Your task to perform on an android device: open app "Life360: Find Family & Friends" (install if not already installed), go to login, and select forgot password Image 0: 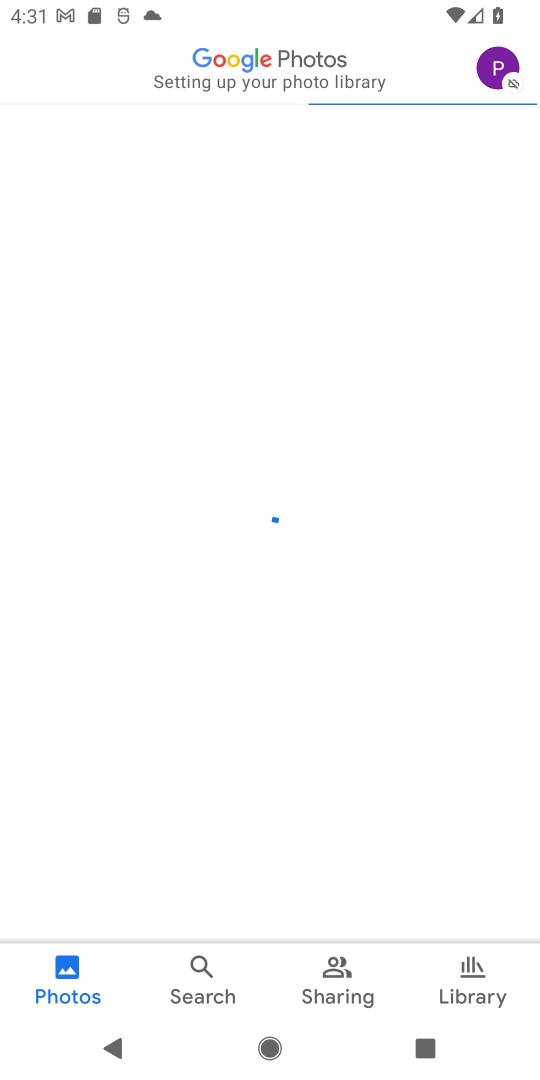
Step 0: press home button
Your task to perform on an android device: open app "Life360: Find Family & Friends" (install if not already installed), go to login, and select forgot password Image 1: 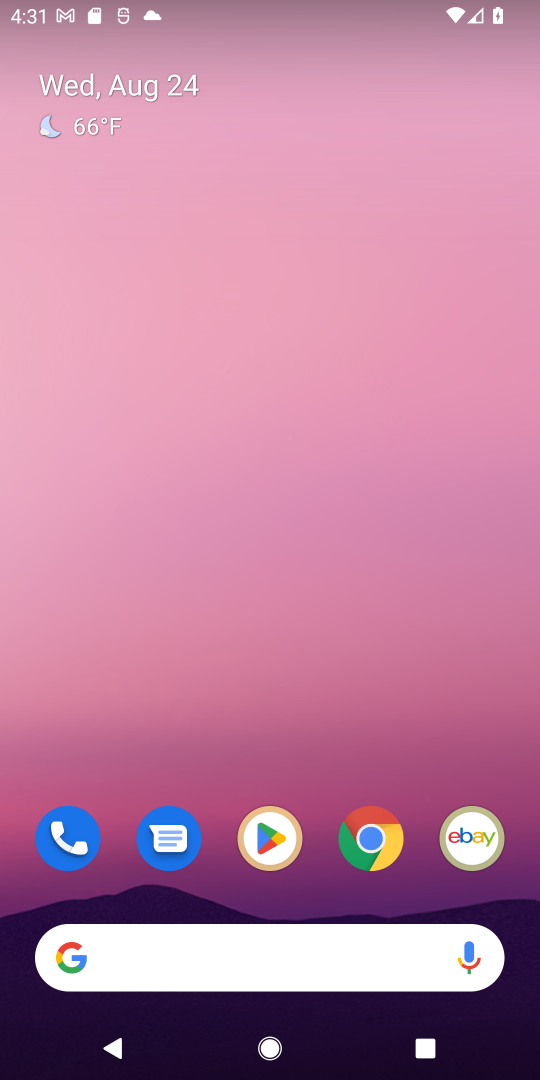
Step 1: click (264, 832)
Your task to perform on an android device: open app "Life360: Find Family & Friends" (install if not already installed), go to login, and select forgot password Image 2: 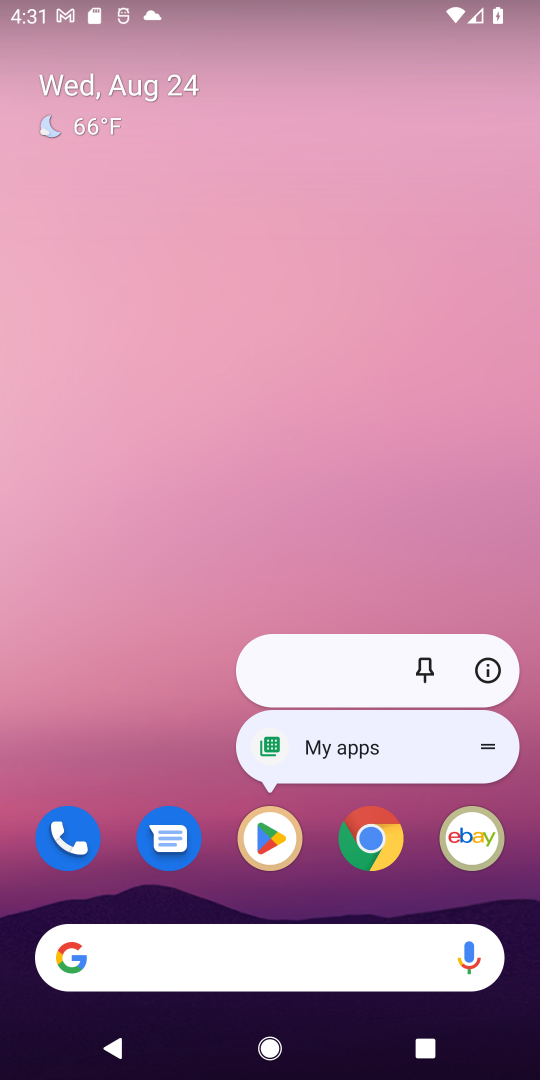
Step 2: click (264, 832)
Your task to perform on an android device: open app "Life360: Find Family & Friends" (install if not already installed), go to login, and select forgot password Image 3: 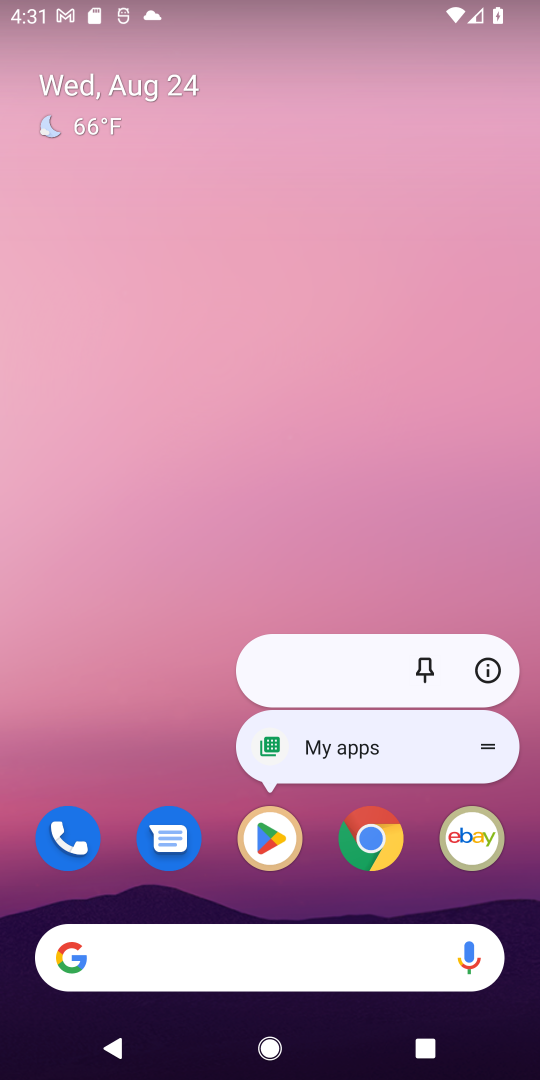
Step 3: click (264, 832)
Your task to perform on an android device: open app "Life360: Find Family & Friends" (install if not already installed), go to login, and select forgot password Image 4: 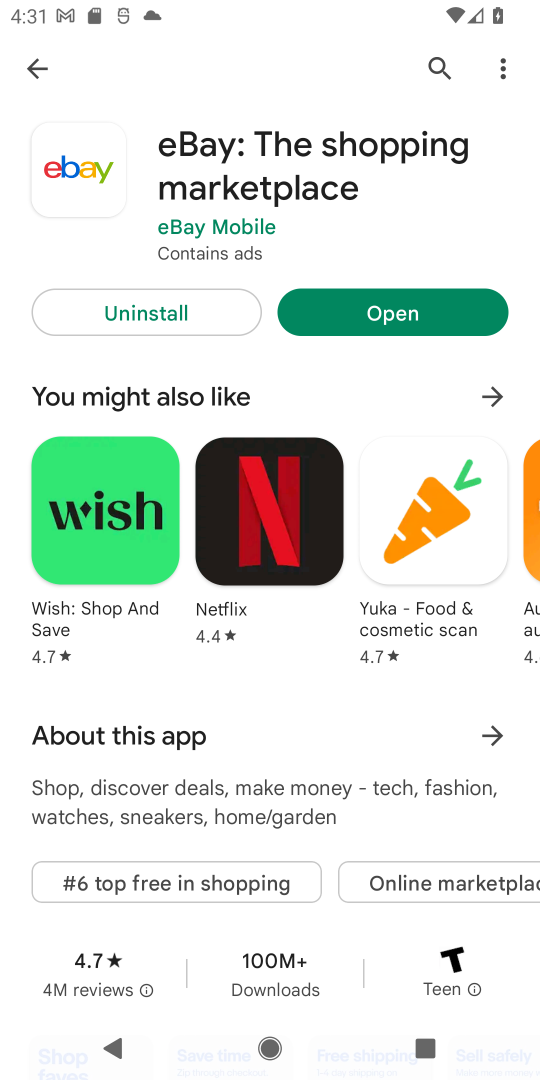
Step 4: click (41, 73)
Your task to perform on an android device: open app "Life360: Find Family & Friends" (install if not already installed), go to login, and select forgot password Image 5: 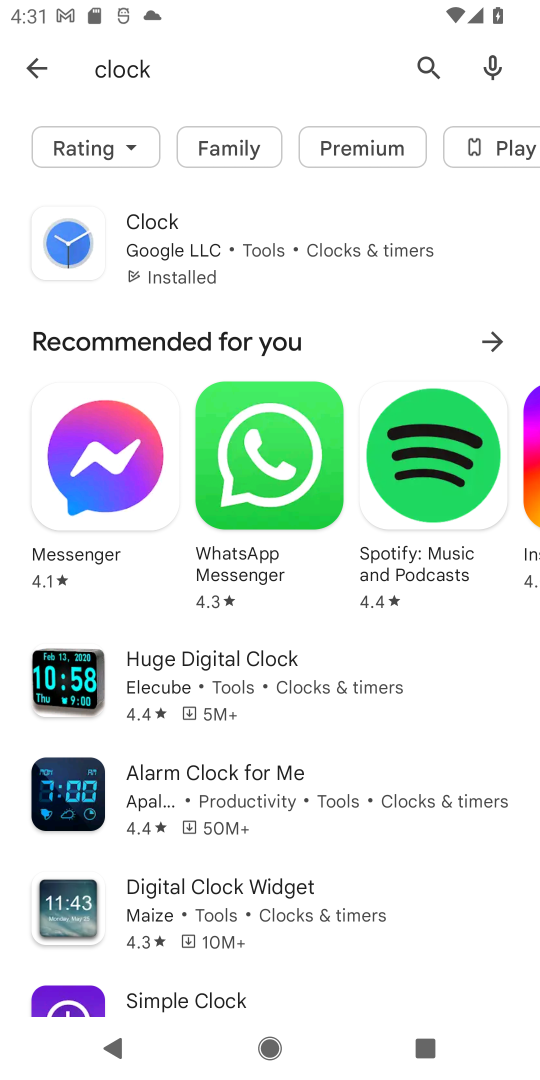
Step 5: click (425, 60)
Your task to perform on an android device: open app "Life360: Find Family & Friends" (install if not already installed), go to login, and select forgot password Image 6: 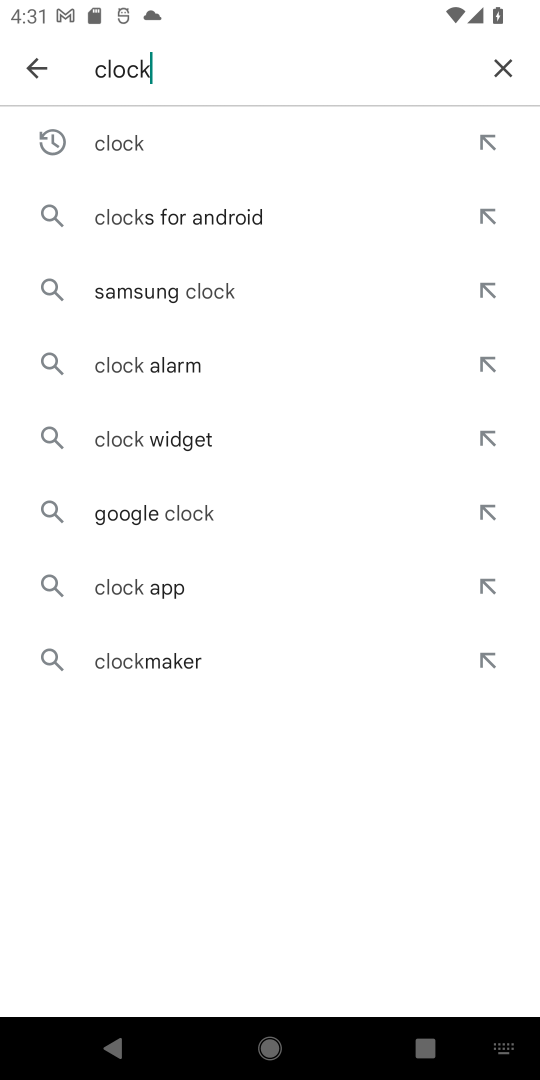
Step 6: click (503, 68)
Your task to perform on an android device: open app "Life360: Find Family & Friends" (install if not already installed), go to login, and select forgot password Image 7: 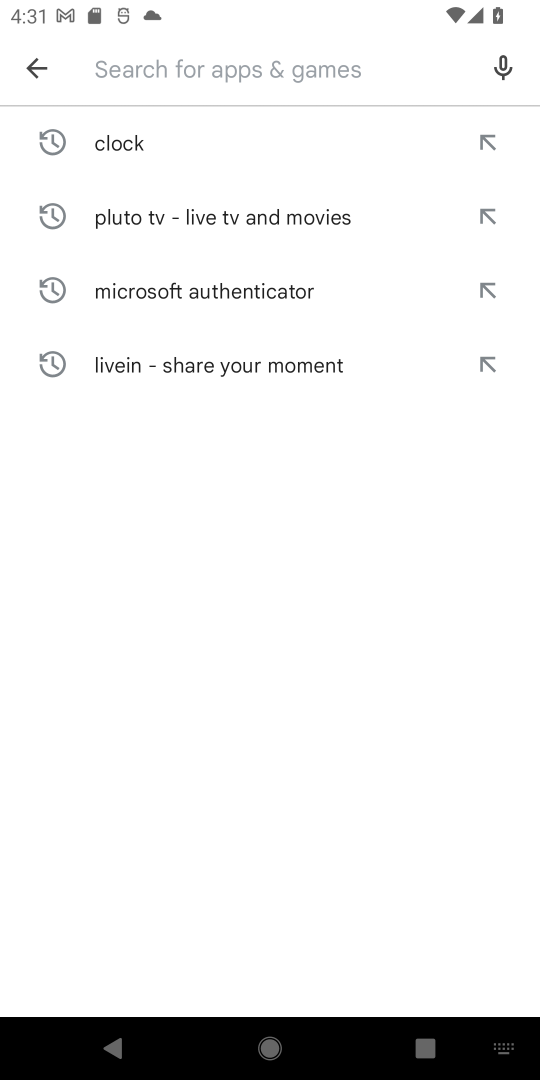
Step 7: type "Life360: Find Family & Friends"
Your task to perform on an android device: open app "Life360: Find Family & Friends" (install if not already installed), go to login, and select forgot password Image 8: 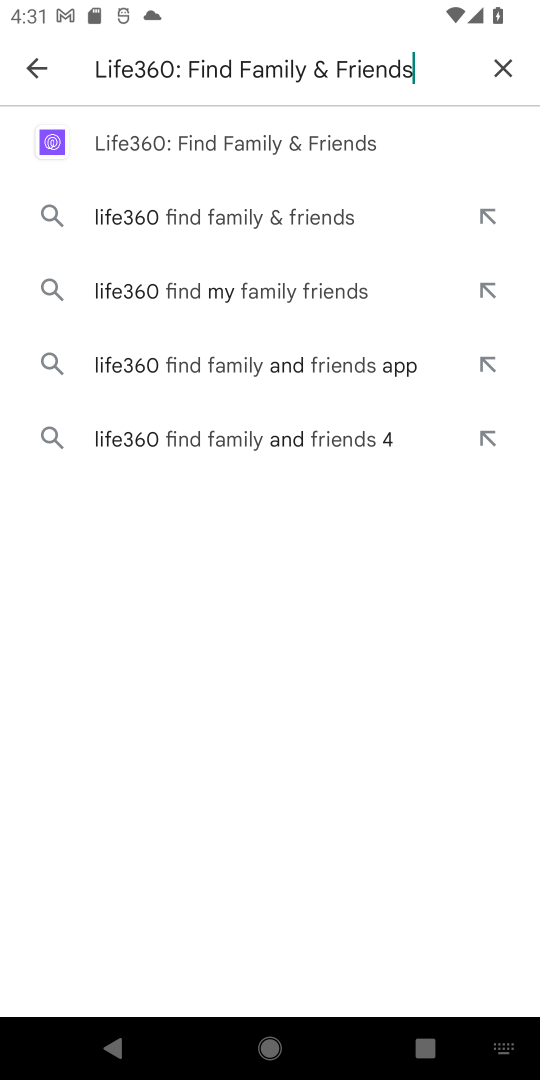
Step 8: click (154, 141)
Your task to perform on an android device: open app "Life360: Find Family & Friends" (install if not already installed), go to login, and select forgot password Image 9: 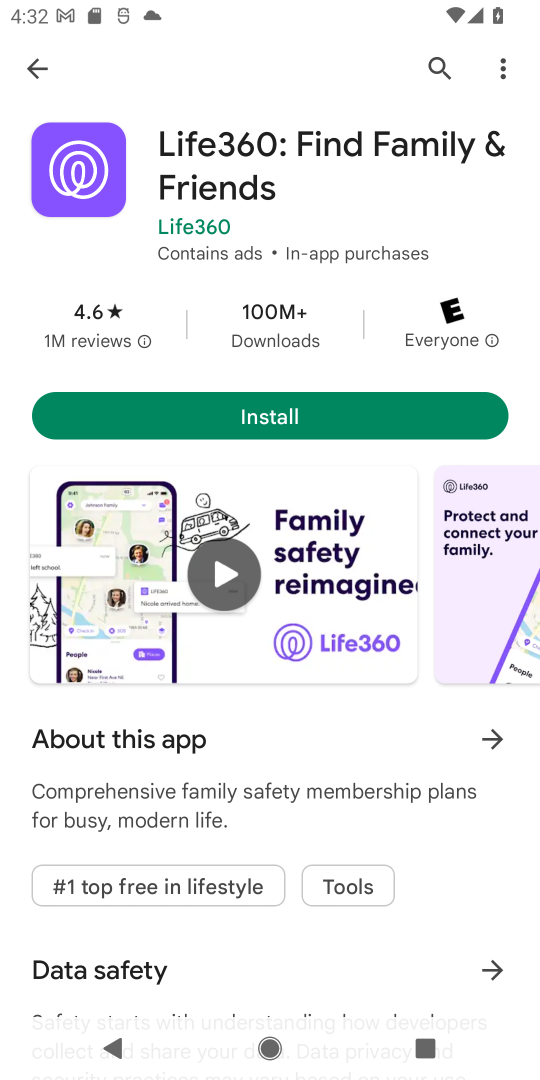
Step 9: click (274, 415)
Your task to perform on an android device: open app "Life360: Find Family & Friends" (install if not already installed), go to login, and select forgot password Image 10: 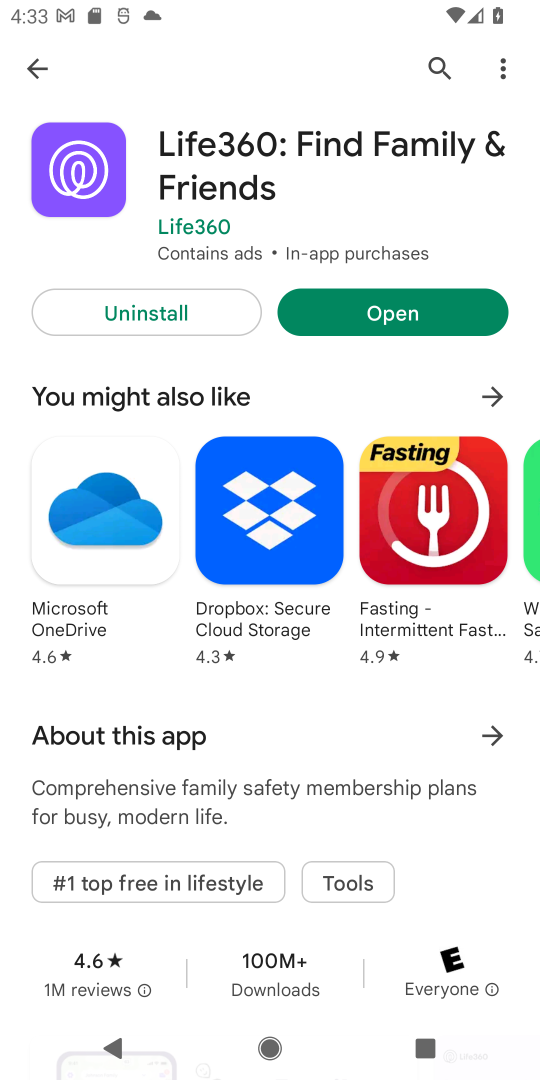
Step 10: click (394, 317)
Your task to perform on an android device: open app "Life360: Find Family & Friends" (install if not already installed), go to login, and select forgot password Image 11: 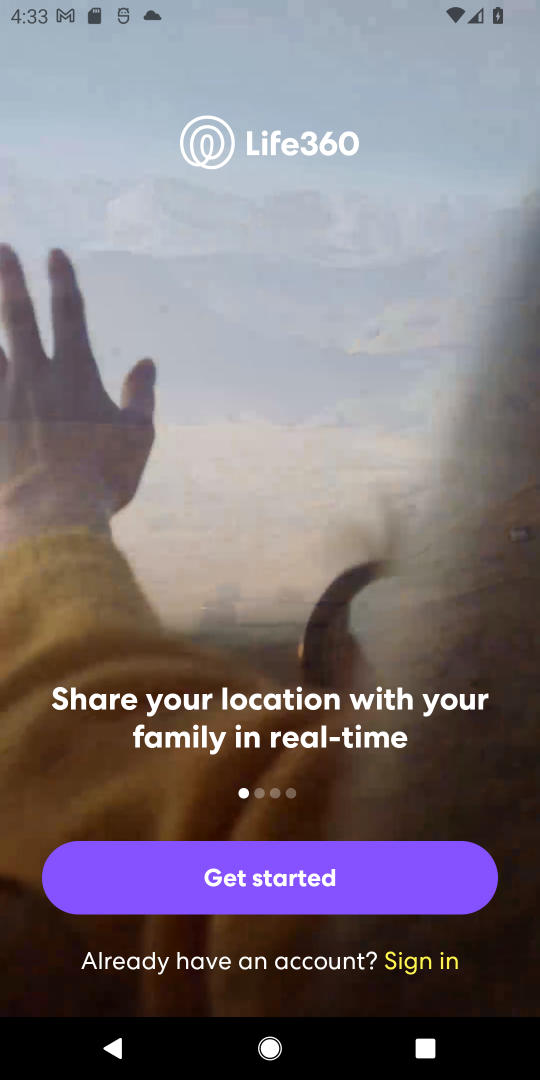
Step 11: click (272, 881)
Your task to perform on an android device: open app "Life360: Find Family & Friends" (install if not already installed), go to login, and select forgot password Image 12: 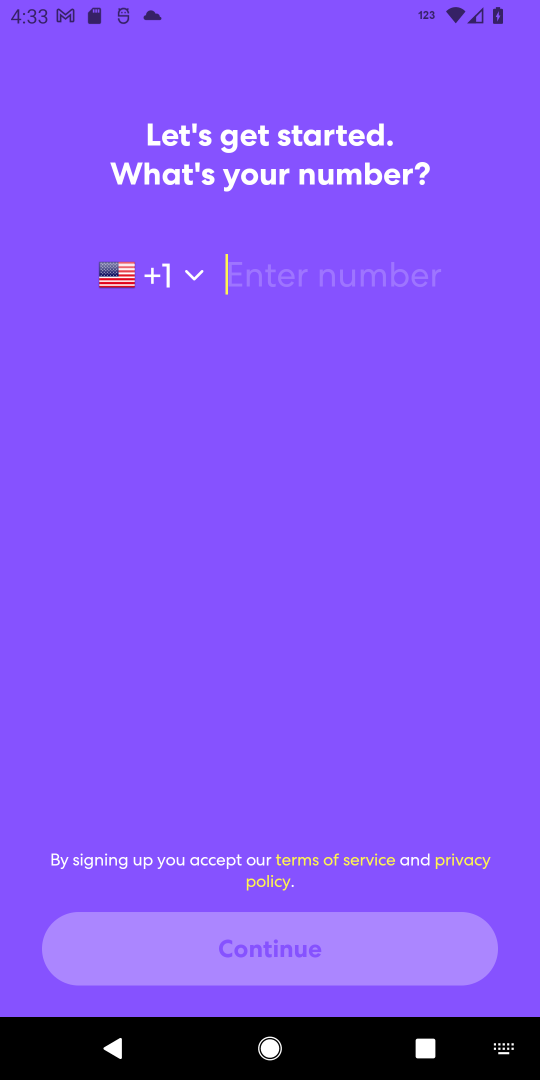
Step 12: task complete